Your task to perform on an android device: turn off location Image 0: 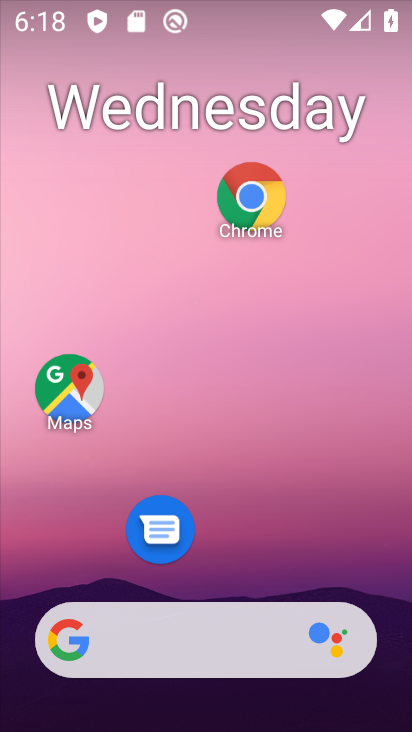
Step 0: drag from (226, 564) to (217, 140)
Your task to perform on an android device: turn off location Image 1: 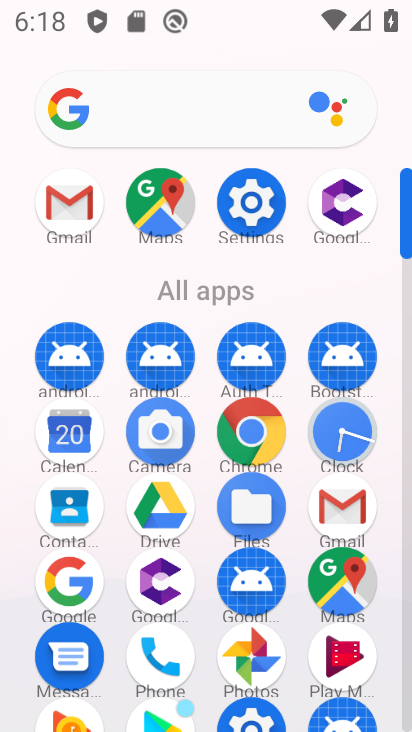
Step 1: click (261, 190)
Your task to perform on an android device: turn off location Image 2: 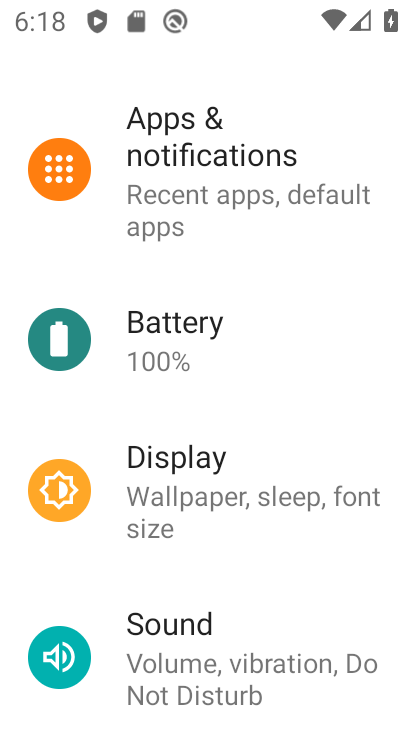
Step 2: drag from (180, 655) to (174, 226)
Your task to perform on an android device: turn off location Image 3: 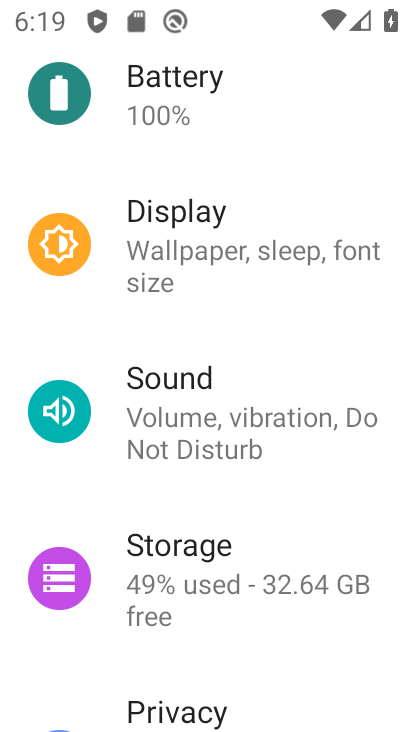
Step 3: drag from (243, 658) to (243, 223)
Your task to perform on an android device: turn off location Image 4: 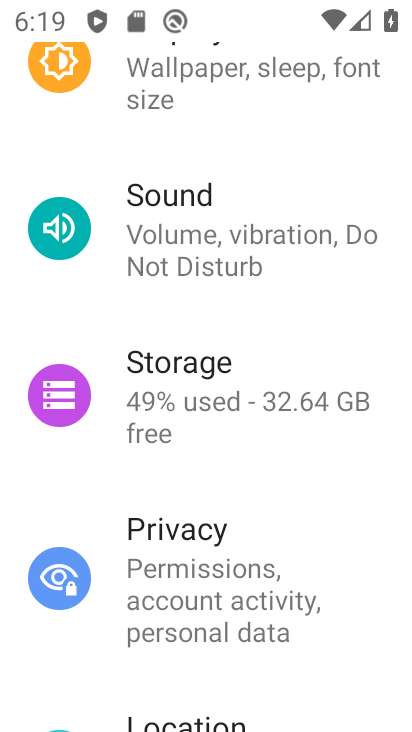
Step 4: drag from (200, 651) to (191, 226)
Your task to perform on an android device: turn off location Image 5: 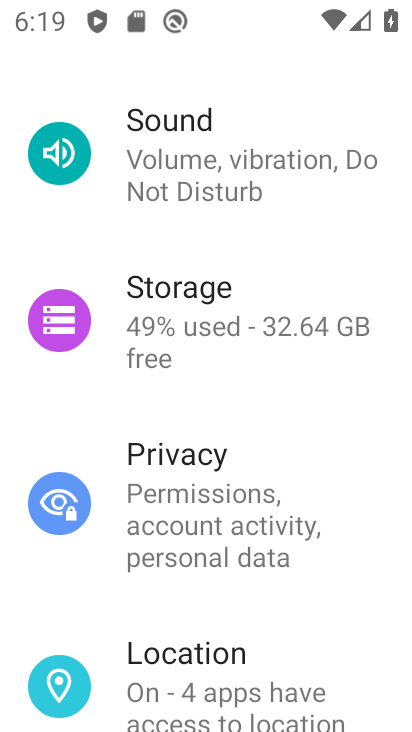
Step 5: click (174, 672)
Your task to perform on an android device: turn off location Image 6: 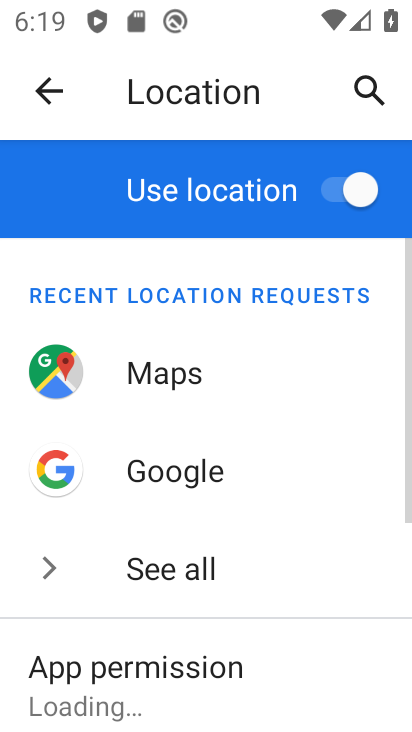
Step 6: drag from (284, 684) to (281, 223)
Your task to perform on an android device: turn off location Image 7: 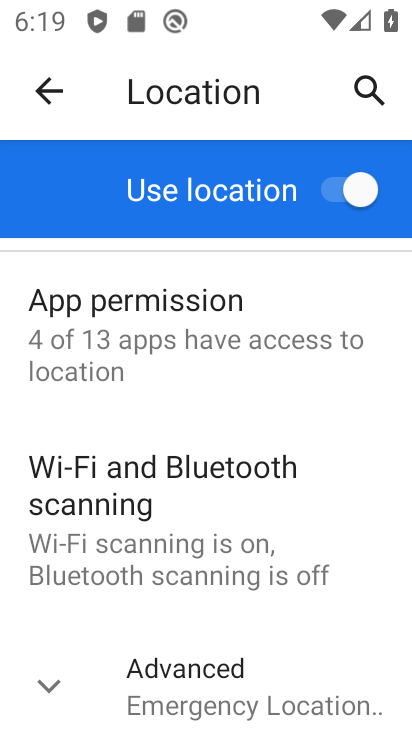
Step 7: click (333, 181)
Your task to perform on an android device: turn off location Image 8: 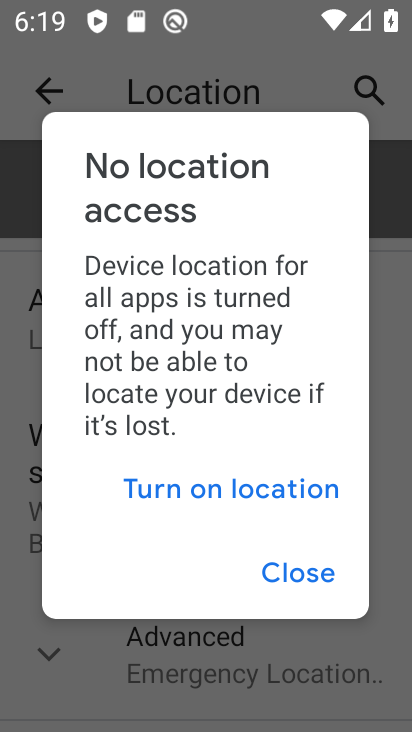
Step 8: click (281, 579)
Your task to perform on an android device: turn off location Image 9: 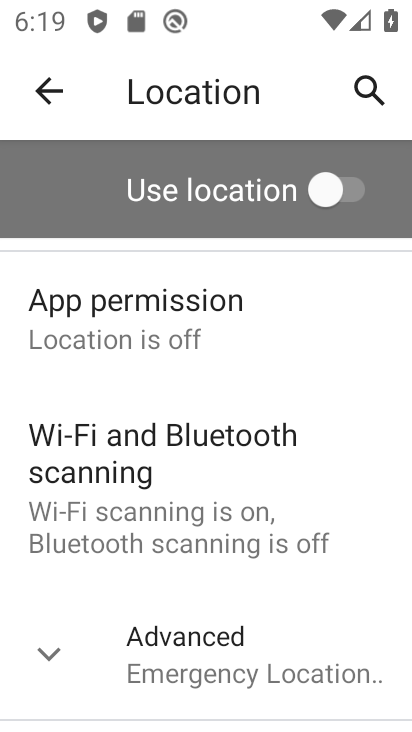
Step 9: task complete